Your task to perform on an android device: open a bookmark in the chrome app Image 0: 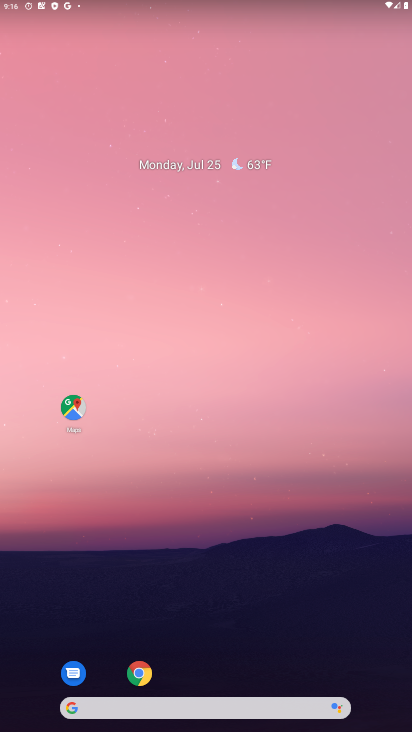
Step 0: click (224, 108)
Your task to perform on an android device: open a bookmark in the chrome app Image 1: 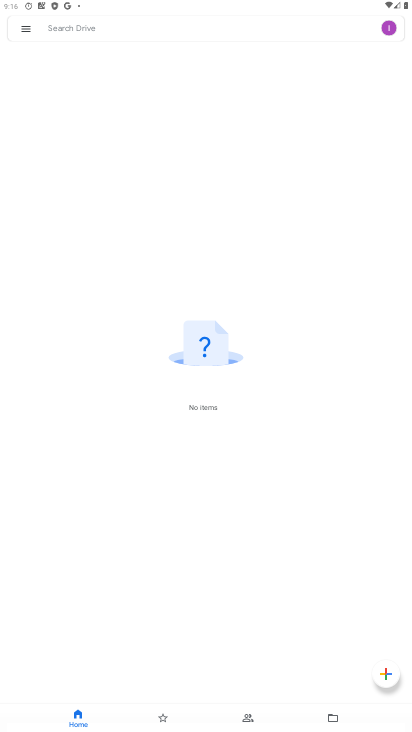
Step 1: drag from (168, 536) to (281, 148)
Your task to perform on an android device: open a bookmark in the chrome app Image 2: 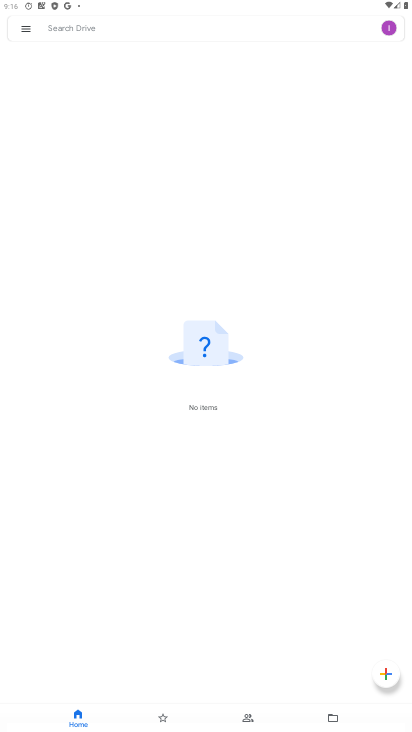
Step 2: press home button
Your task to perform on an android device: open a bookmark in the chrome app Image 3: 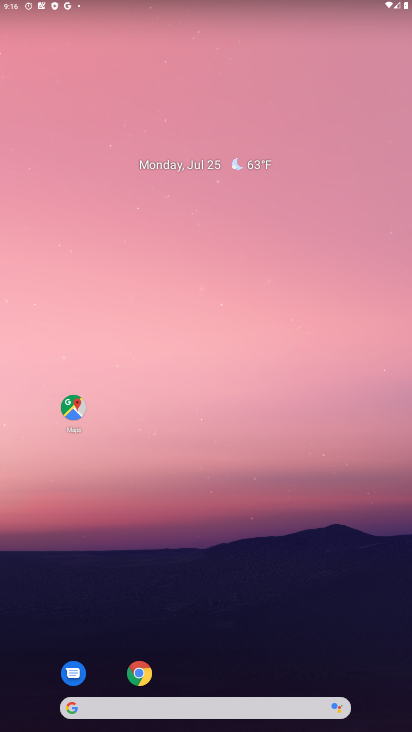
Step 3: drag from (188, 645) to (194, 378)
Your task to perform on an android device: open a bookmark in the chrome app Image 4: 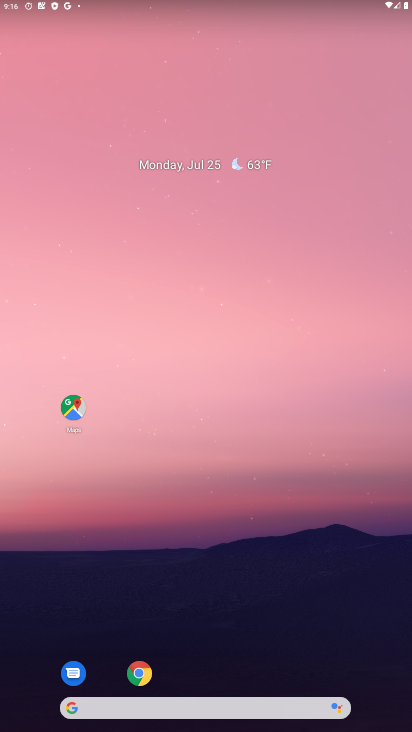
Step 4: drag from (198, 665) to (238, 183)
Your task to perform on an android device: open a bookmark in the chrome app Image 5: 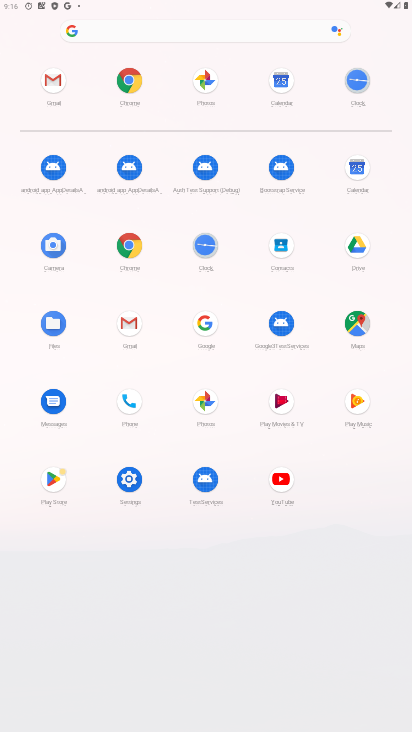
Step 5: click (125, 240)
Your task to perform on an android device: open a bookmark in the chrome app Image 6: 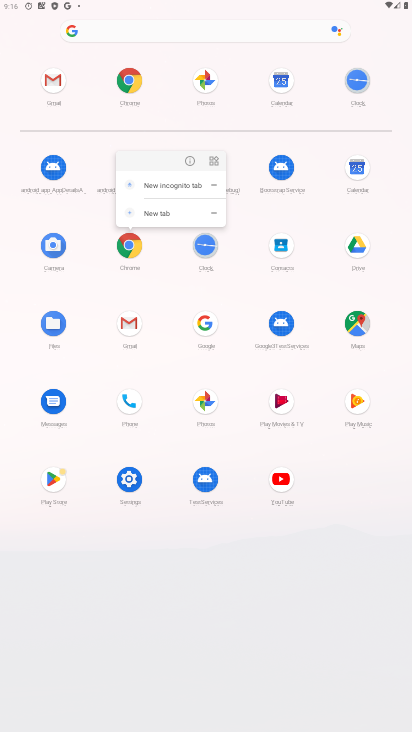
Step 6: click (185, 159)
Your task to perform on an android device: open a bookmark in the chrome app Image 7: 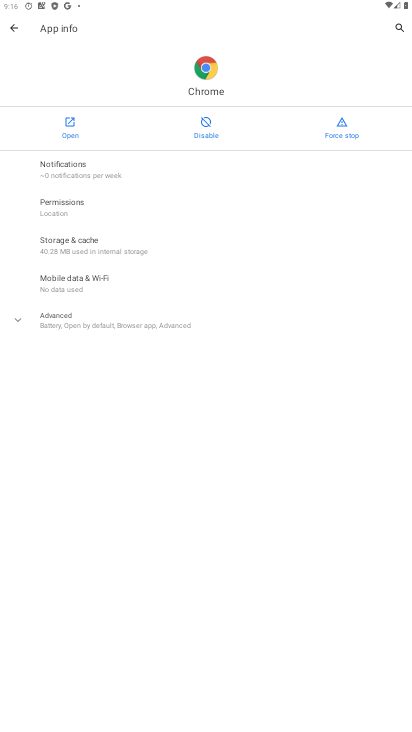
Step 7: click (77, 133)
Your task to perform on an android device: open a bookmark in the chrome app Image 8: 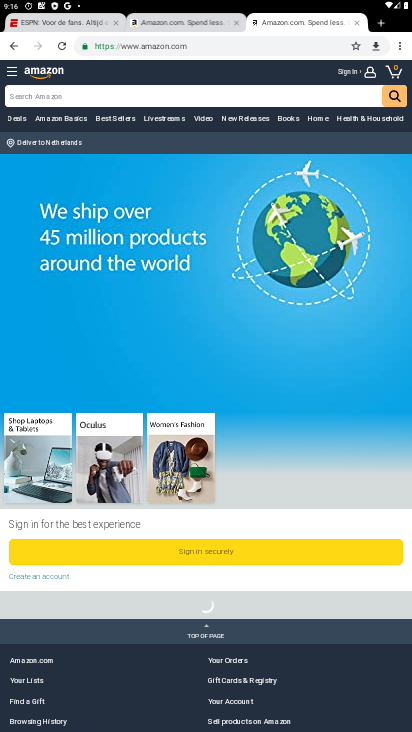
Step 8: task complete